Your task to perform on an android device: star an email in the gmail app Image 0: 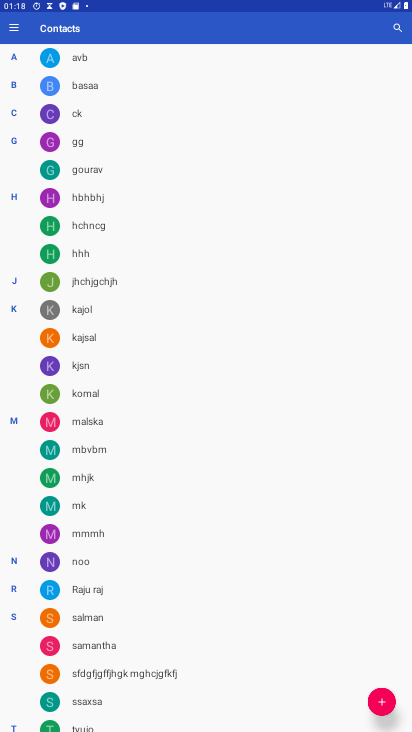
Step 0: press home button
Your task to perform on an android device: star an email in the gmail app Image 1: 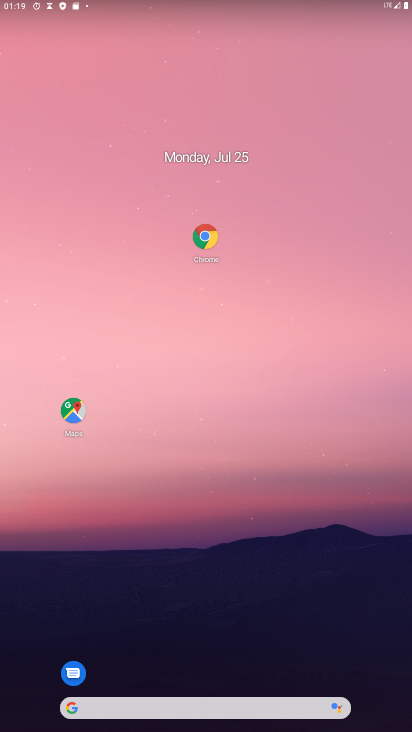
Step 1: drag from (280, 707) to (235, 16)
Your task to perform on an android device: star an email in the gmail app Image 2: 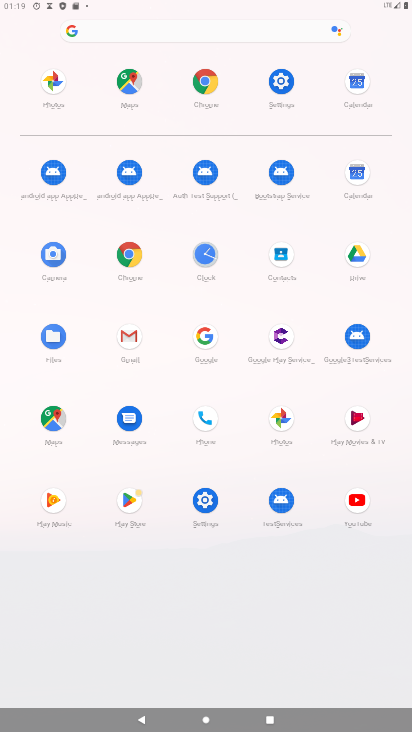
Step 2: click (128, 328)
Your task to perform on an android device: star an email in the gmail app Image 3: 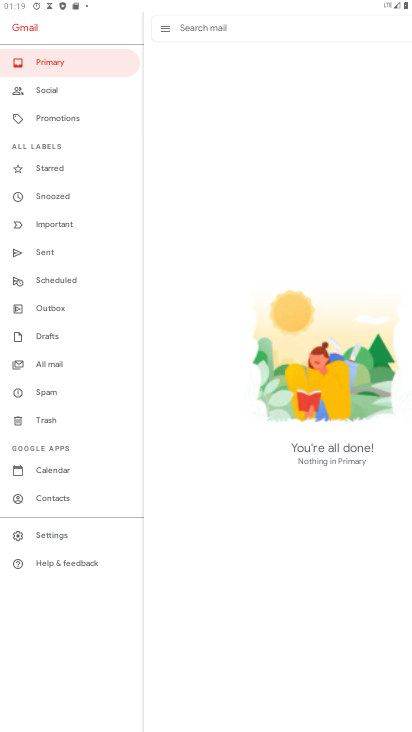
Step 3: click (64, 161)
Your task to perform on an android device: star an email in the gmail app Image 4: 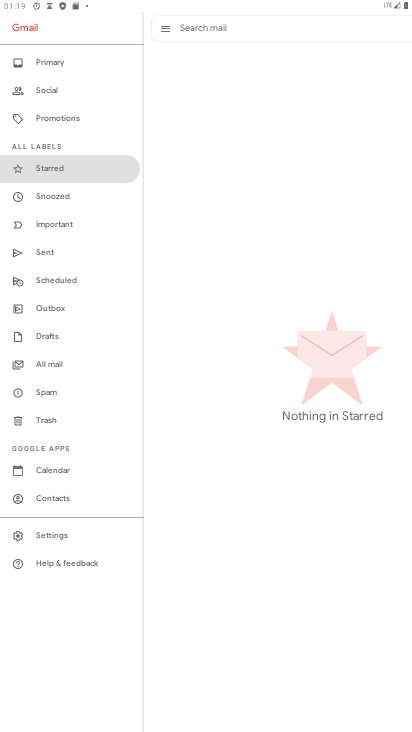
Step 4: task complete